Your task to perform on an android device: turn off location Image 0: 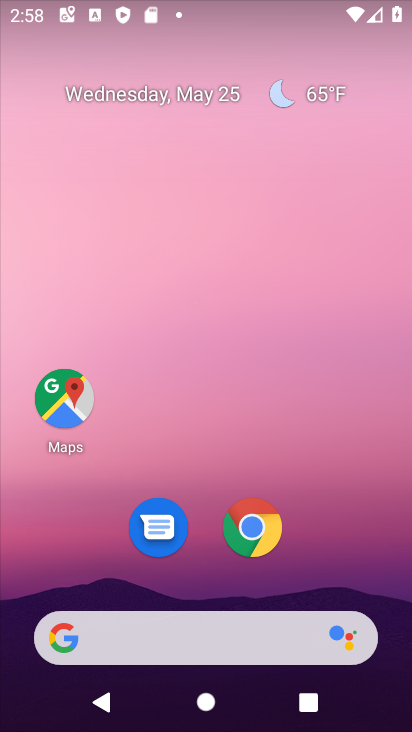
Step 0: drag from (235, 631) to (230, 108)
Your task to perform on an android device: turn off location Image 1: 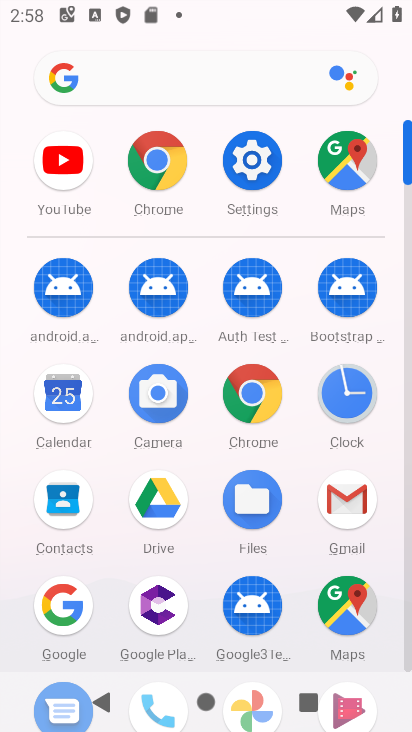
Step 1: click (250, 169)
Your task to perform on an android device: turn off location Image 2: 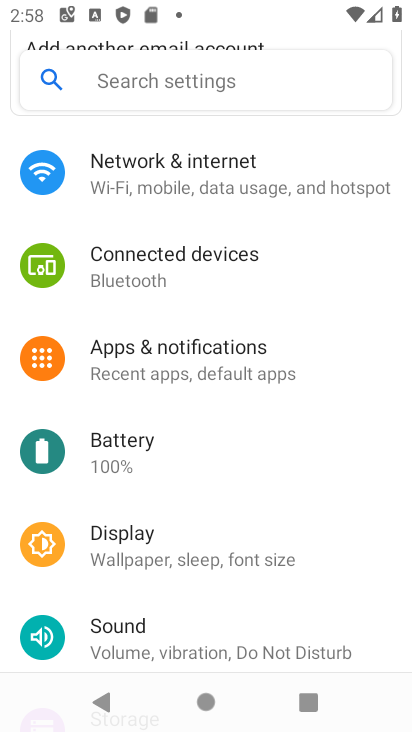
Step 2: drag from (261, 636) to (257, 156)
Your task to perform on an android device: turn off location Image 3: 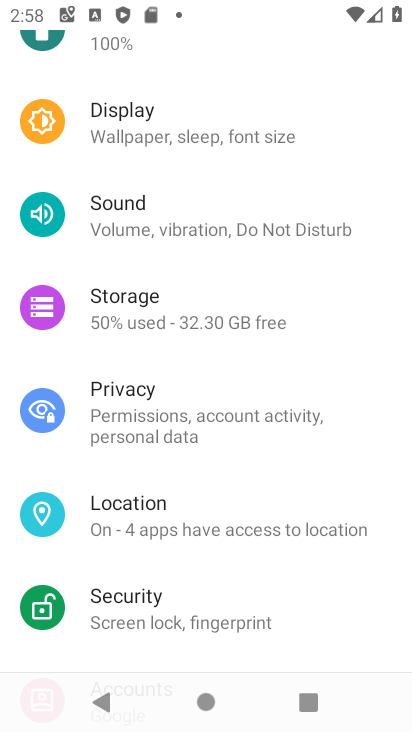
Step 3: click (178, 513)
Your task to perform on an android device: turn off location Image 4: 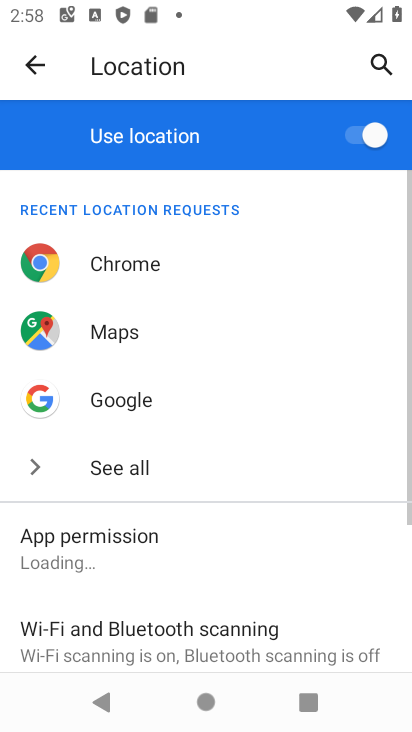
Step 4: click (358, 139)
Your task to perform on an android device: turn off location Image 5: 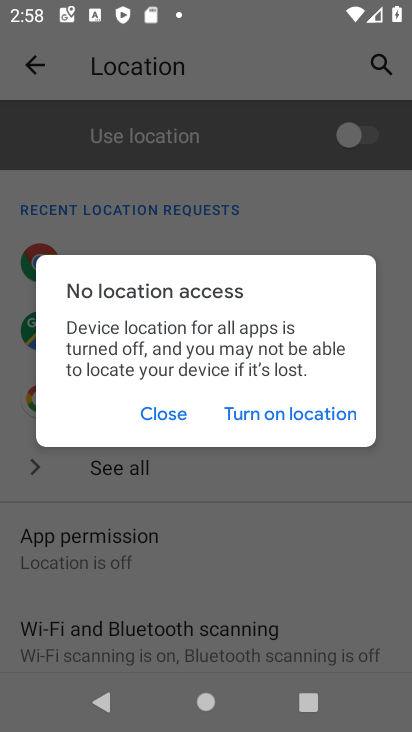
Step 5: click (153, 410)
Your task to perform on an android device: turn off location Image 6: 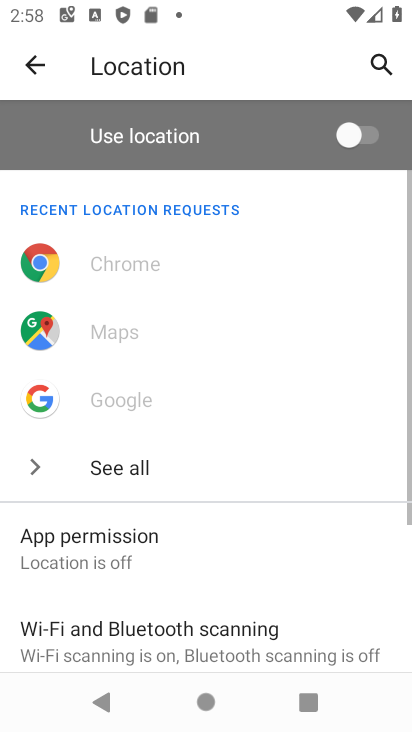
Step 6: task complete